Your task to perform on an android device: add a contact Image 0: 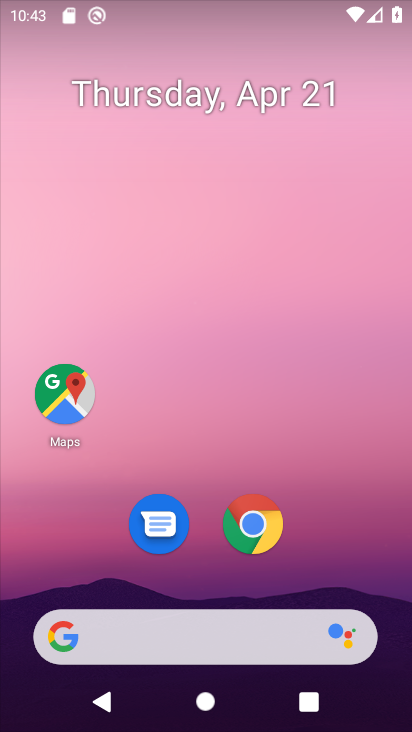
Step 0: drag from (328, 517) to (303, 58)
Your task to perform on an android device: add a contact Image 1: 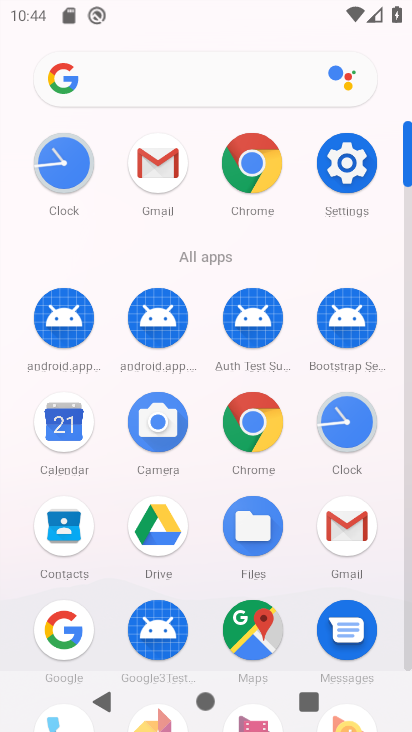
Step 1: click (68, 532)
Your task to perform on an android device: add a contact Image 2: 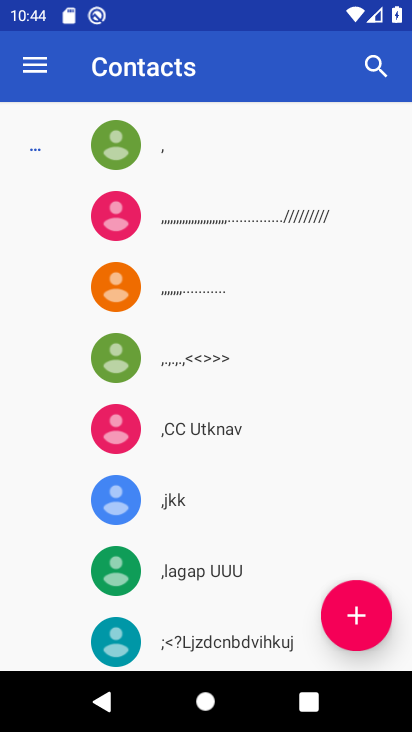
Step 2: click (339, 618)
Your task to perform on an android device: add a contact Image 3: 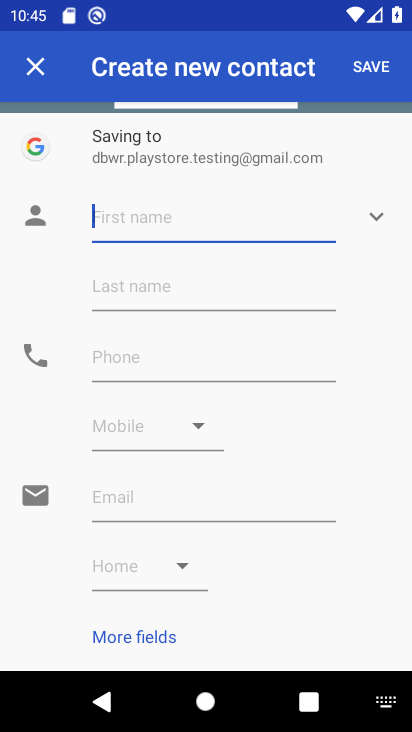
Step 3: type "Prabhu"
Your task to perform on an android device: add a contact Image 4: 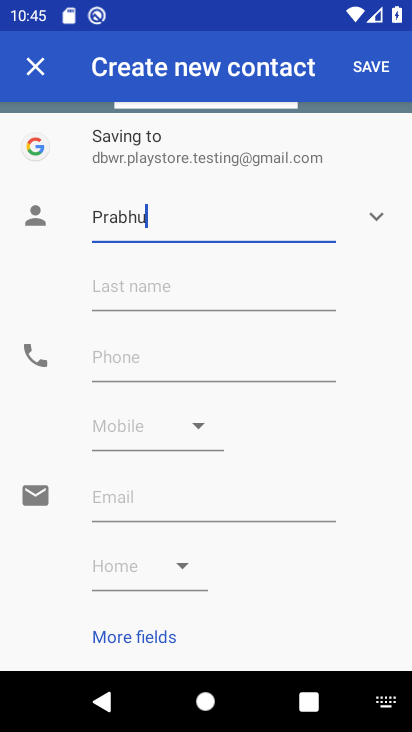
Step 4: click (289, 359)
Your task to perform on an android device: add a contact Image 5: 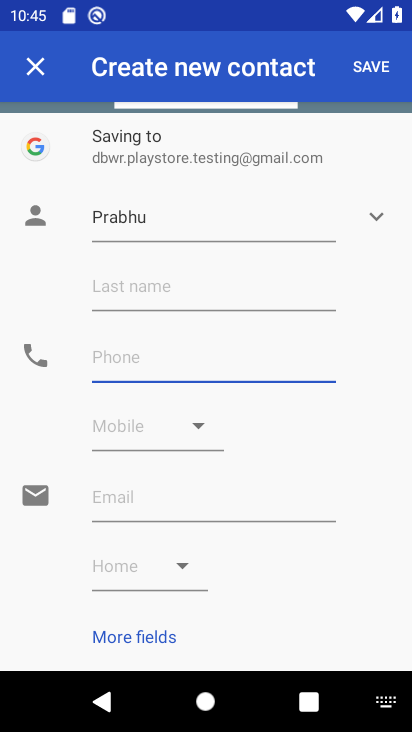
Step 5: type "9111234567890"
Your task to perform on an android device: add a contact Image 6: 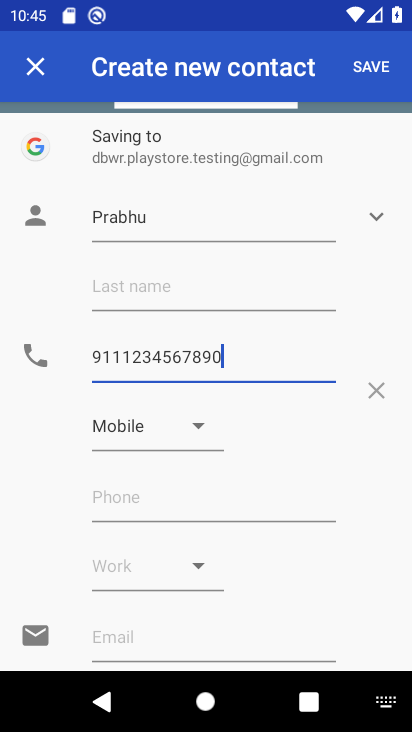
Step 6: click (383, 68)
Your task to perform on an android device: add a contact Image 7: 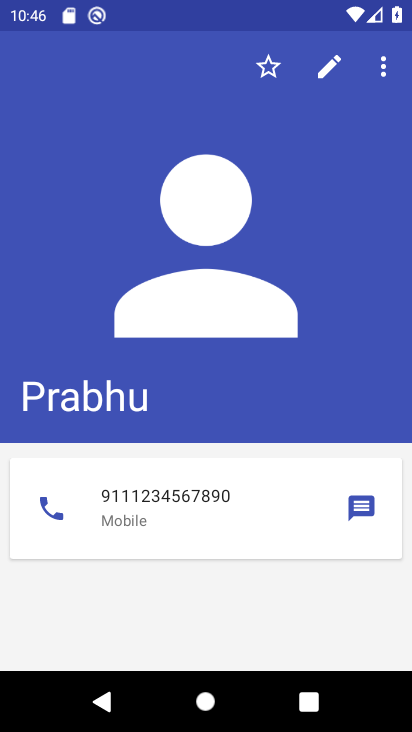
Step 7: task complete